Your task to perform on an android device: turn on bluetooth scan Image 0: 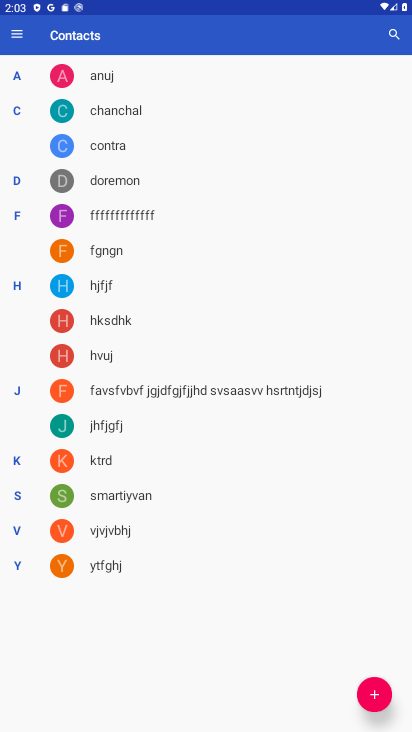
Step 0: press home button
Your task to perform on an android device: turn on bluetooth scan Image 1: 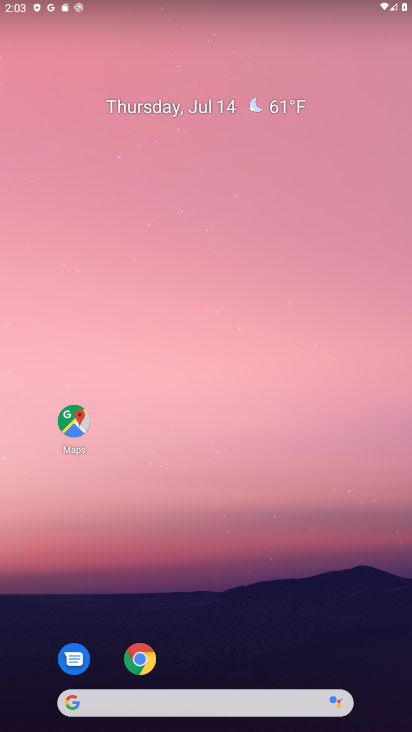
Step 1: drag from (217, 651) to (163, 31)
Your task to perform on an android device: turn on bluetooth scan Image 2: 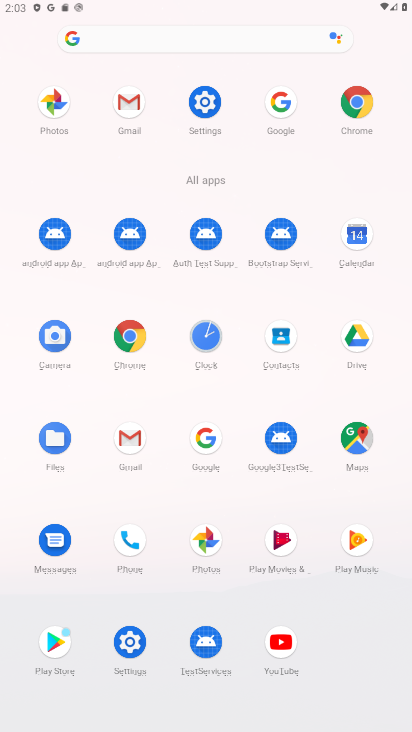
Step 2: click (135, 663)
Your task to perform on an android device: turn on bluetooth scan Image 3: 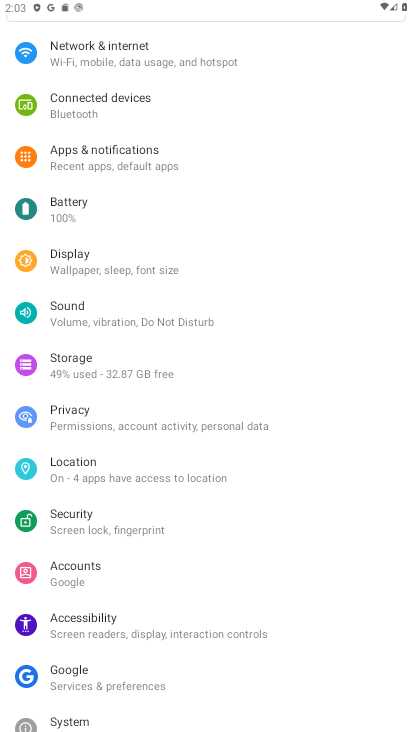
Step 3: click (84, 455)
Your task to perform on an android device: turn on bluetooth scan Image 4: 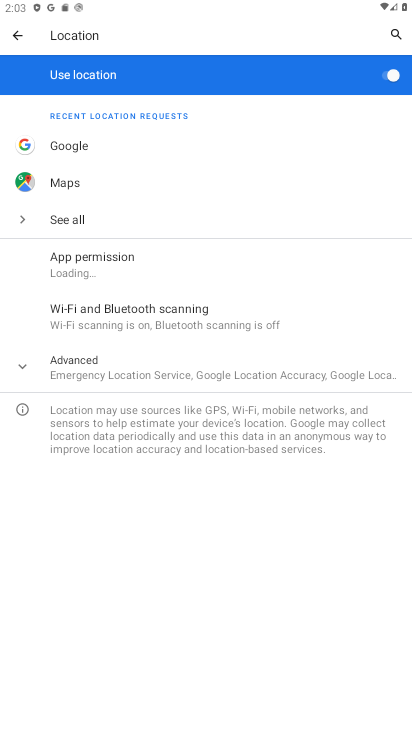
Step 4: click (112, 306)
Your task to perform on an android device: turn on bluetooth scan Image 5: 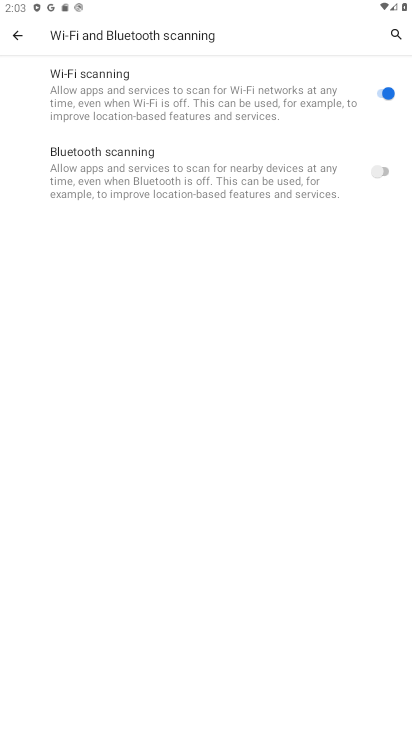
Step 5: click (369, 172)
Your task to perform on an android device: turn on bluetooth scan Image 6: 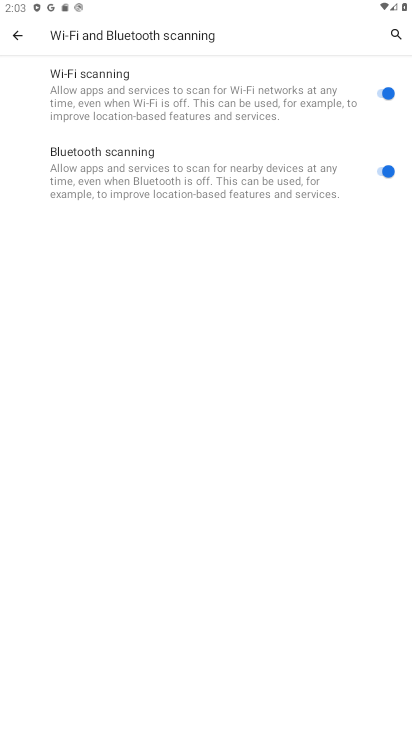
Step 6: task complete